Your task to perform on an android device: make emails show in primary in the gmail app Image 0: 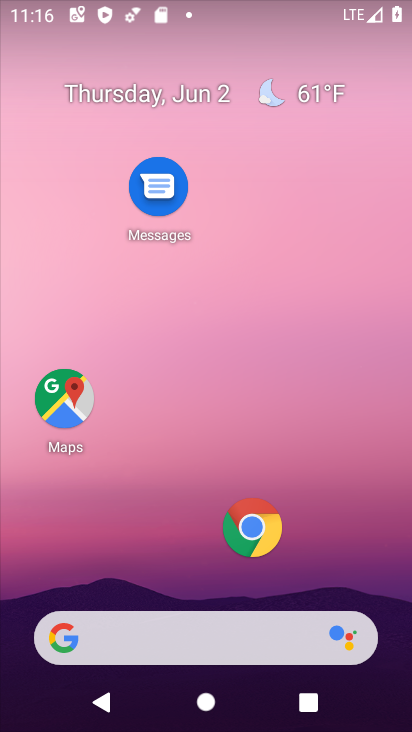
Step 0: press home button
Your task to perform on an android device: make emails show in primary in the gmail app Image 1: 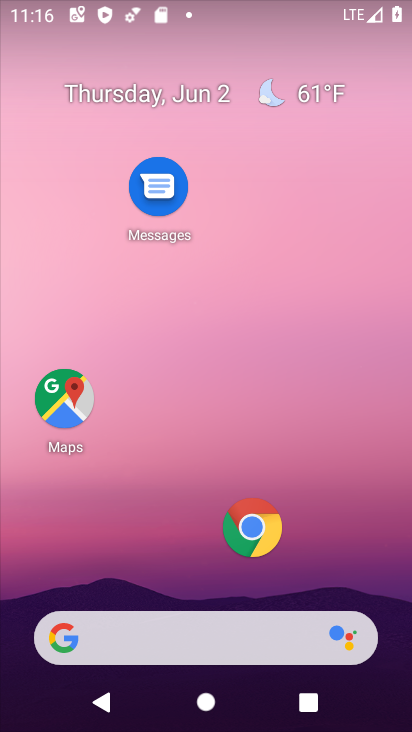
Step 1: drag from (223, 578) to (215, 99)
Your task to perform on an android device: make emails show in primary in the gmail app Image 2: 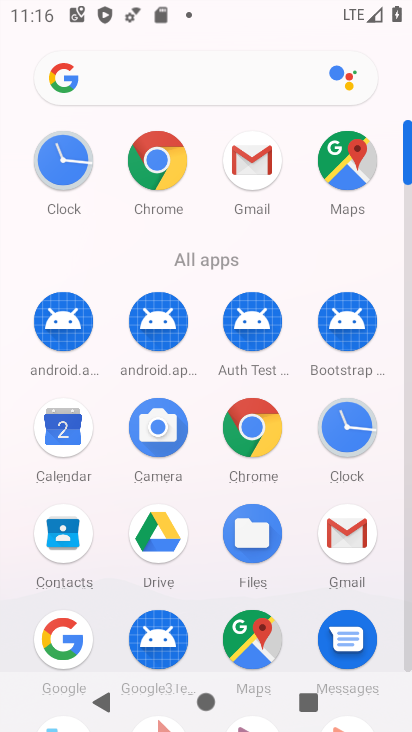
Step 2: click (347, 525)
Your task to perform on an android device: make emails show in primary in the gmail app Image 3: 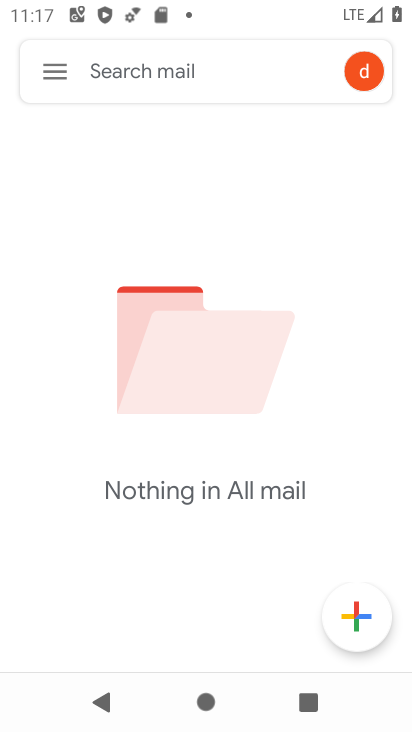
Step 3: click (60, 70)
Your task to perform on an android device: make emails show in primary in the gmail app Image 4: 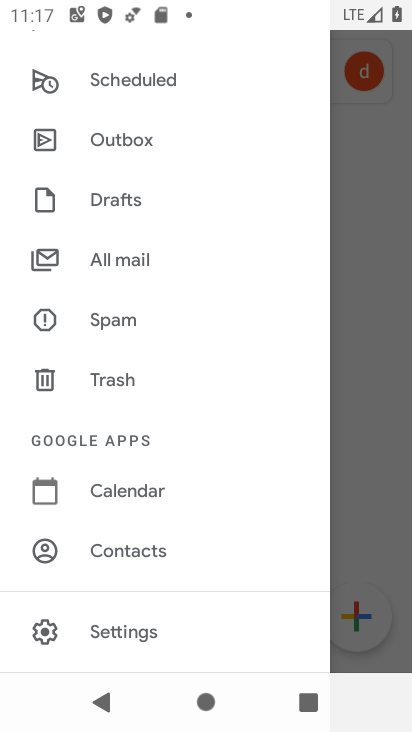
Step 4: click (171, 627)
Your task to perform on an android device: make emails show in primary in the gmail app Image 5: 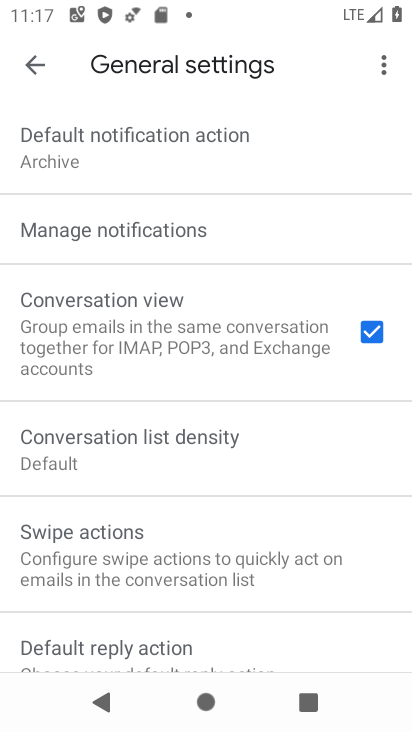
Step 5: click (33, 70)
Your task to perform on an android device: make emails show in primary in the gmail app Image 6: 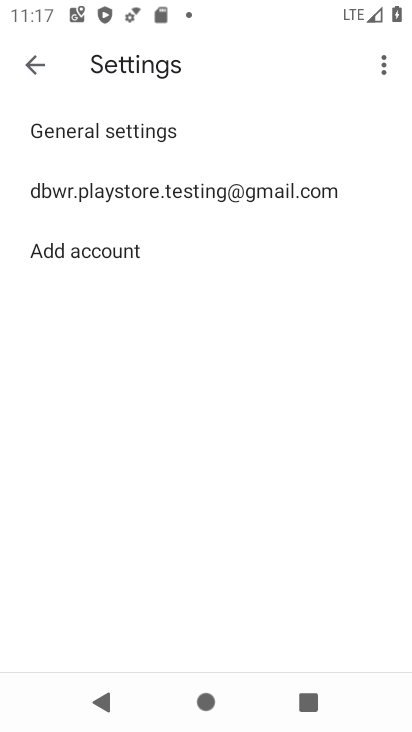
Step 6: click (233, 186)
Your task to perform on an android device: make emails show in primary in the gmail app Image 7: 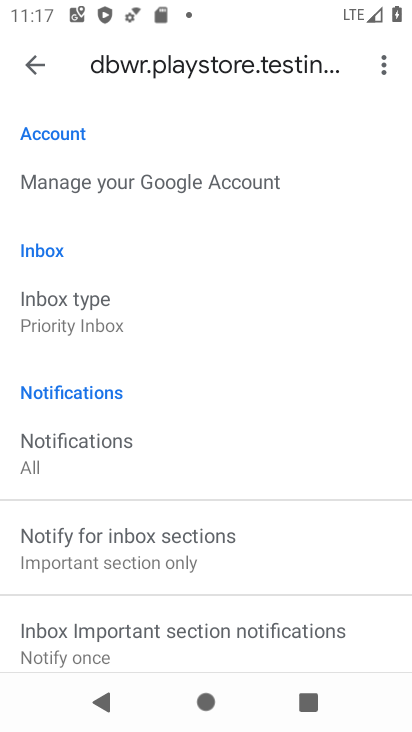
Step 7: click (154, 307)
Your task to perform on an android device: make emails show in primary in the gmail app Image 8: 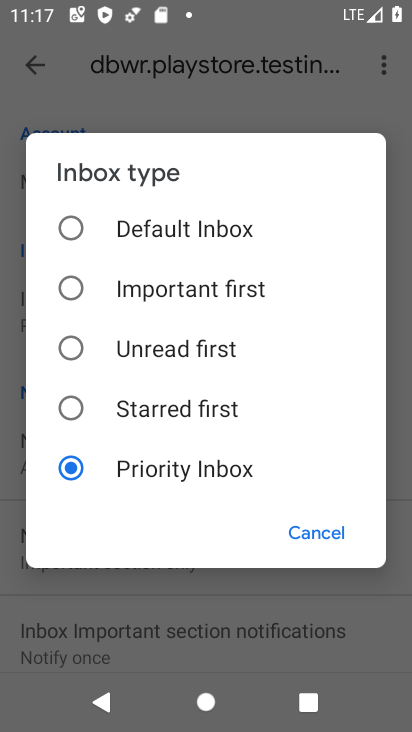
Step 8: click (69, 226)
Your task to perform on an android device: make emails show in primary in the gmail app Image 9: 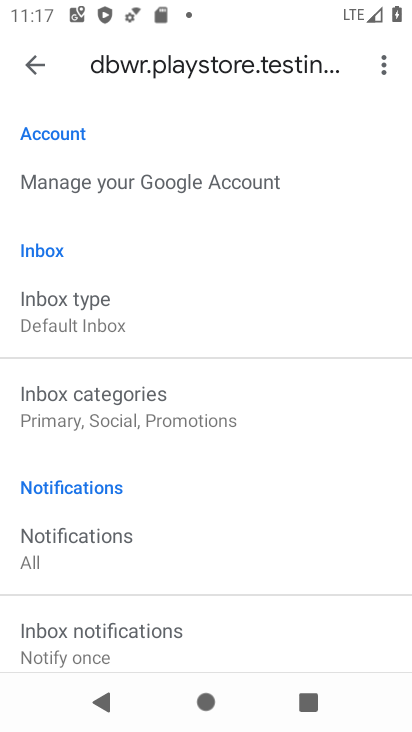
Step 9: task complete